Your task to perform on an android device: Open my contact list Image 0: 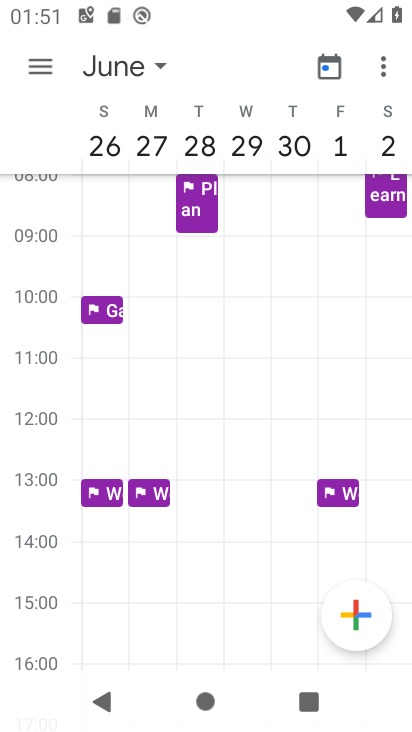
Step 0: press home button
Your task to perform on an android device: Open my contact list Image 1: 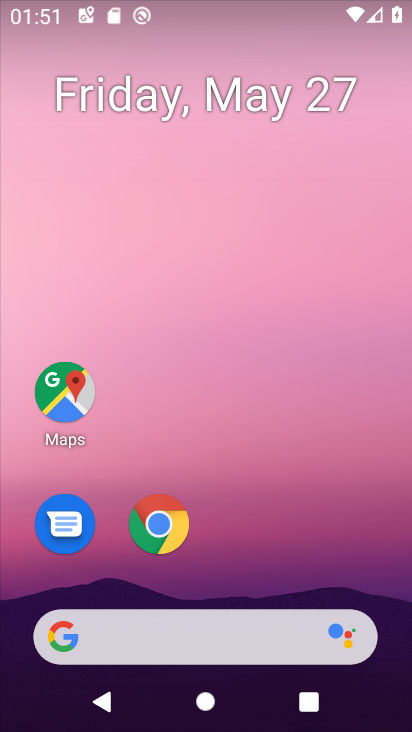
Step 1: drag from (235, 536) to (274, 0)
Your task to perform on an android device: Open my contact list Image 2: 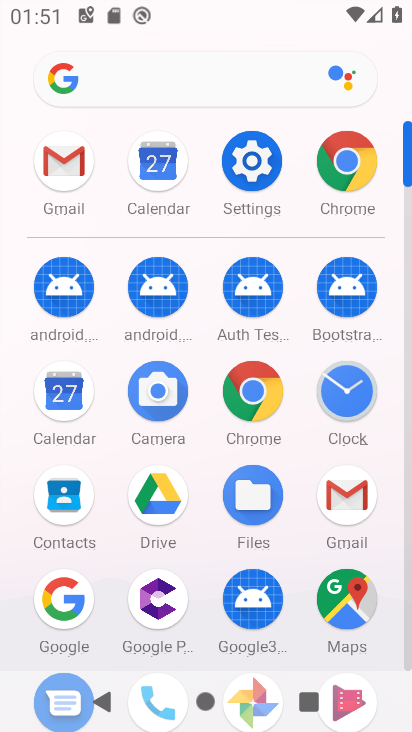
Step 2: click (61, 503)
Your task to perform on an android device: Open my contact list Image 3: 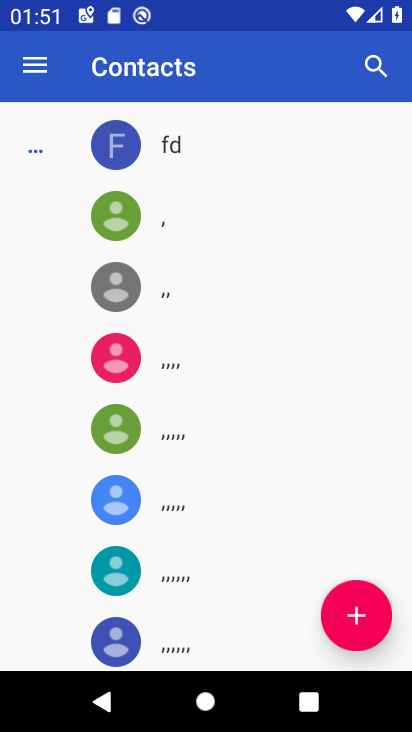
Step 3: task complete